Your task to perform on an android device: clear history in the chrome app Image 0: 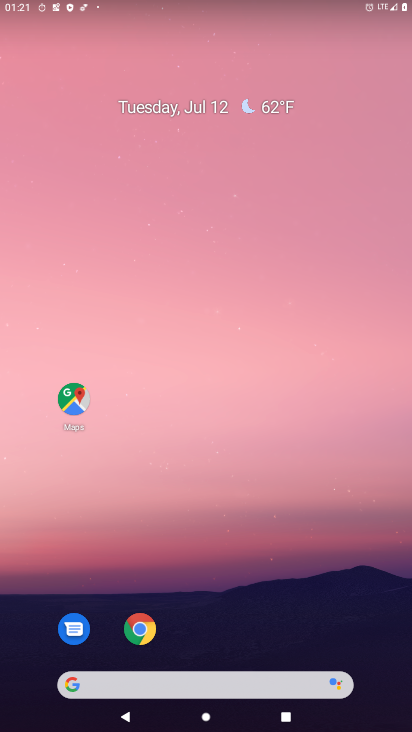
Step 0: drag from (269, 659) to (233, 87)
Your task to perform on an android device: clear history in the chrome app Image 1: 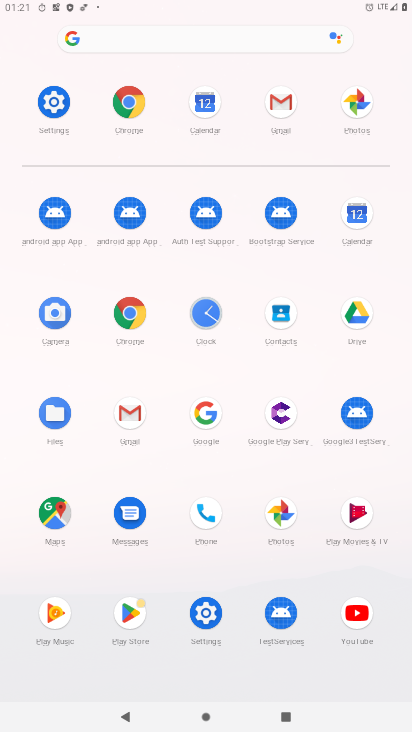
Step 1: click (130, 310)
Your task to perform on an android device: clear history in the chrome app Image 2: 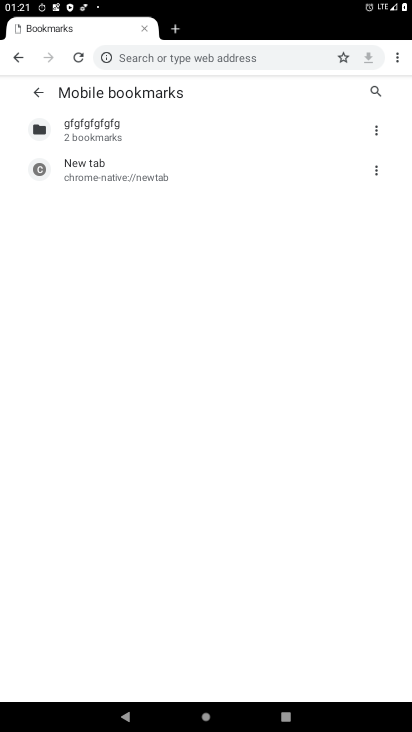
Step 2: task complete